Your task to perform on an android device: turn smart compose on in the gmail app Image 0: 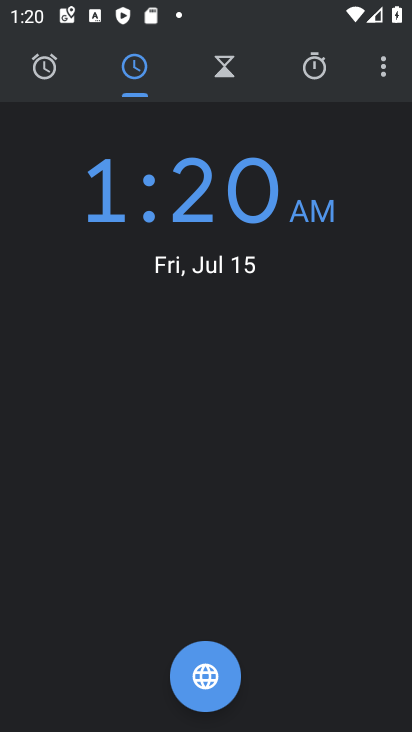
Step 0: press home button
Your task to perform on an android device: turn smart compose on in the gmail app Image 1: 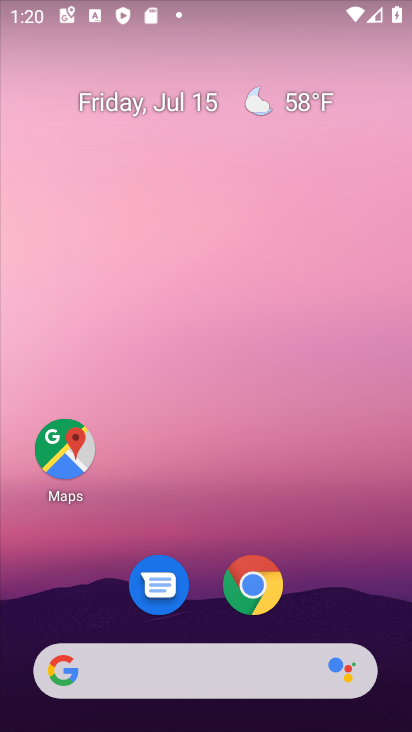
Step 1: drag from (310, 580) to (278, 58)
Your task to perform on an android device: turn smart compose on in the gmail app Image 2: 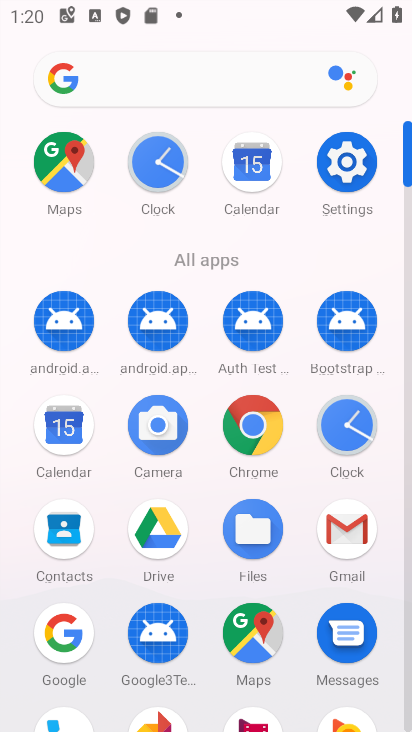
Step 2: click (349, 523)
Your task to perform on an android device: turn smart compose on in the gmail app Image 3: 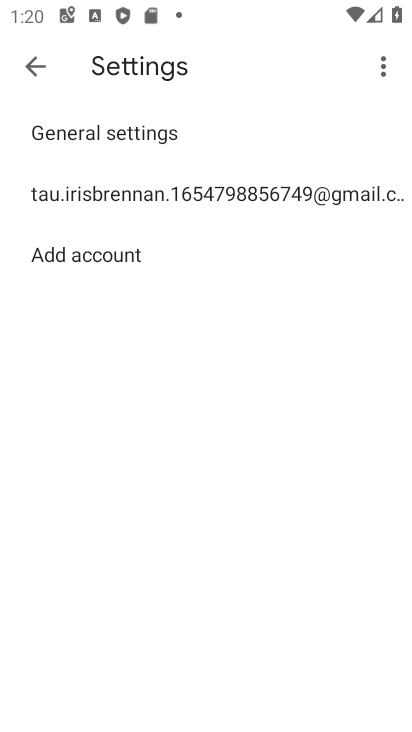
Step 3: click (304, 182)
Your task to perform on an android device: turn smart compose on in the gmail app Image 4: 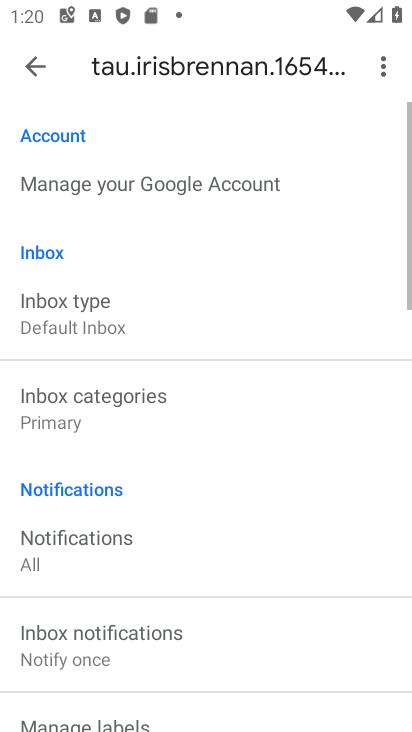
Step 4: task complete